Your task to perform on an android device: Open the Play Movies app and select the watchlist tab. Image 0: 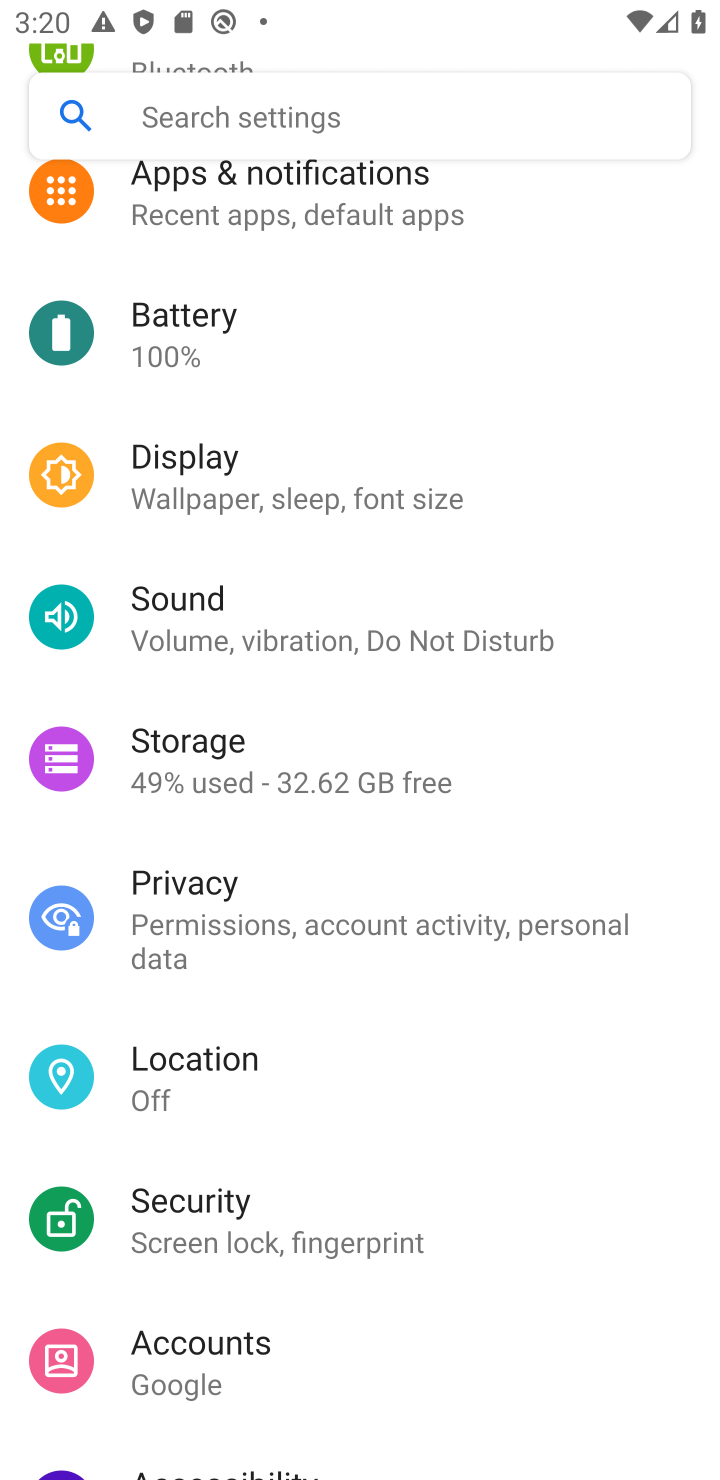
Step 0: press home button
Your task to perform on an android device: Open the Play Movies app and select the watchlist tab. Image 1: 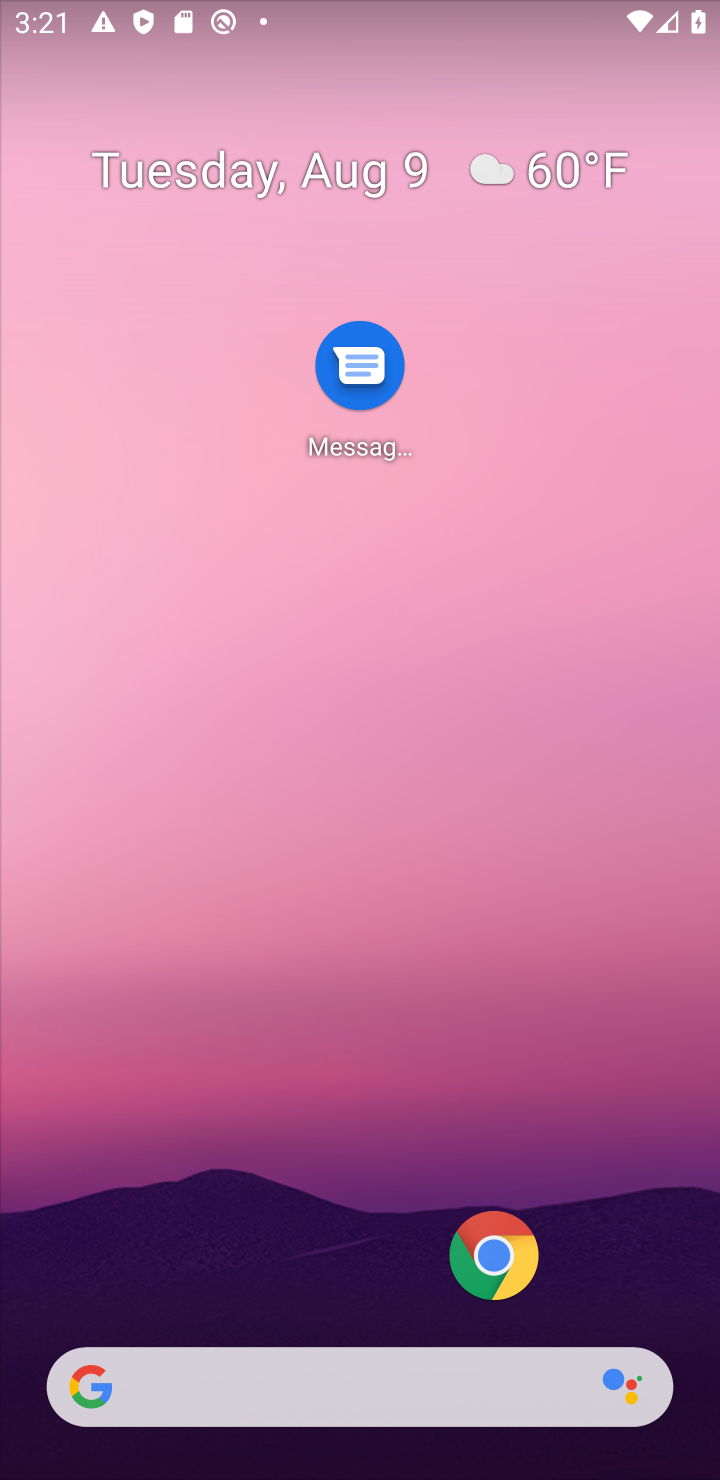
Step 1: drag from (398, 505) to (413, 229)
Your task to perform on an android device: Open the Play Movies app and select the watchlist tab. Image 2: 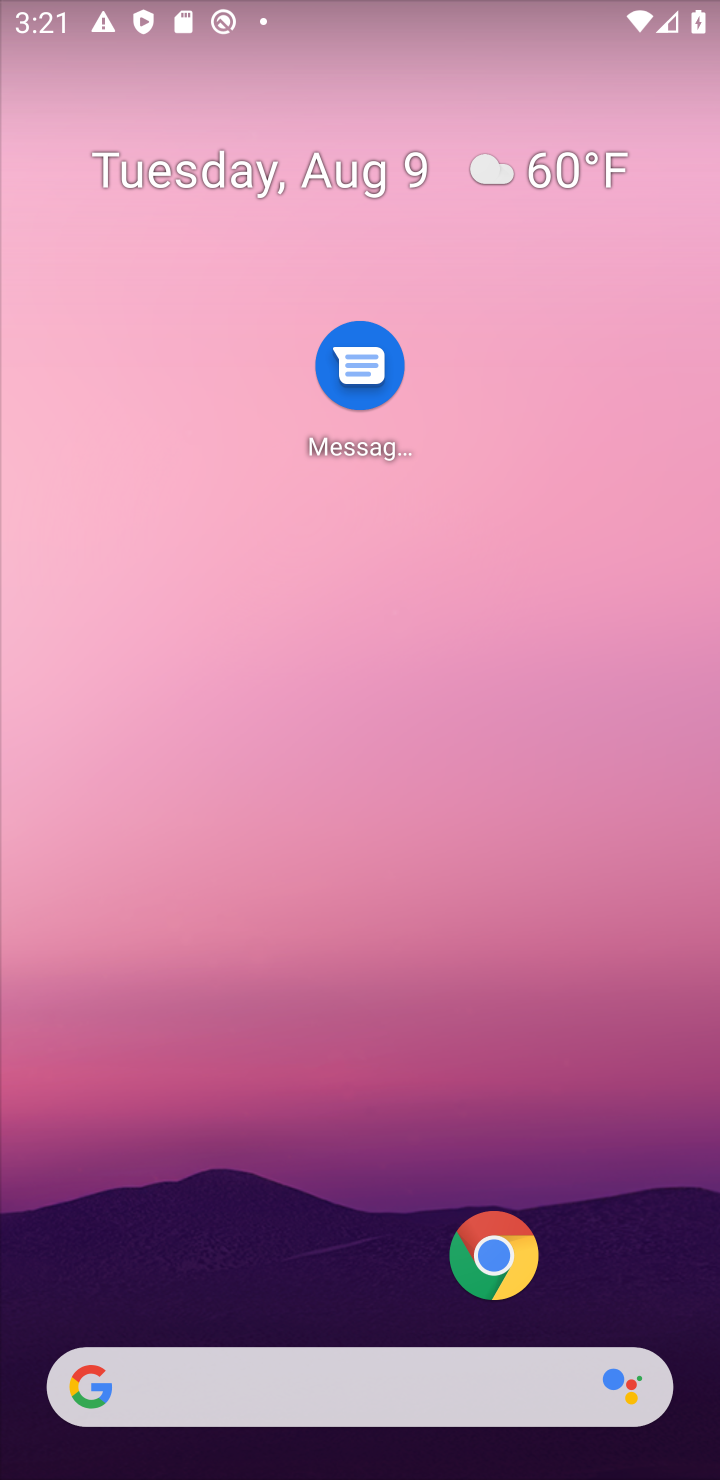
Step 2: drag from (262, 1301) to (376, 441)
Your task to perform on an android device: Open the Play Movies app and select the watchlist tab. Image 3: 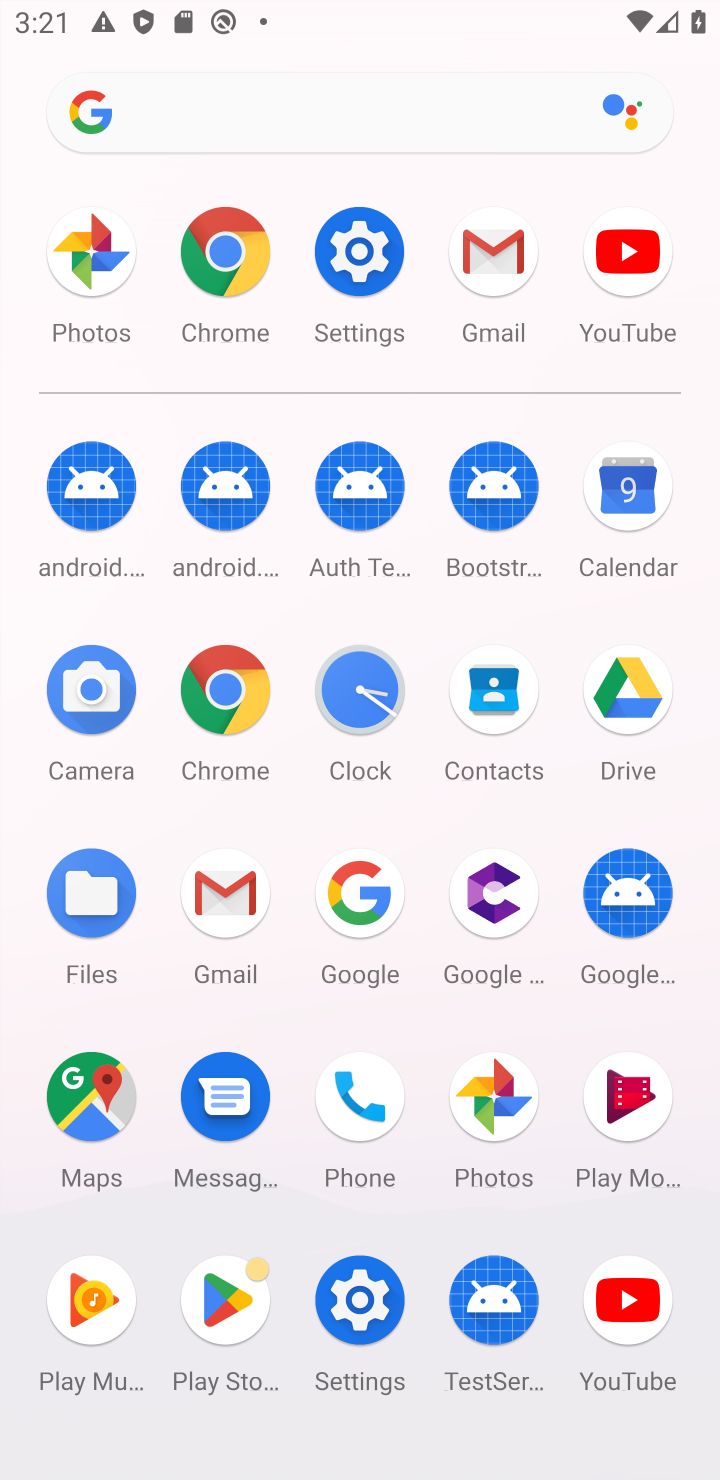
Step 3: click (624, 1105)
Your task to perform on an android device: Open the Play Movies app and select the watchlist tab. Image 4: 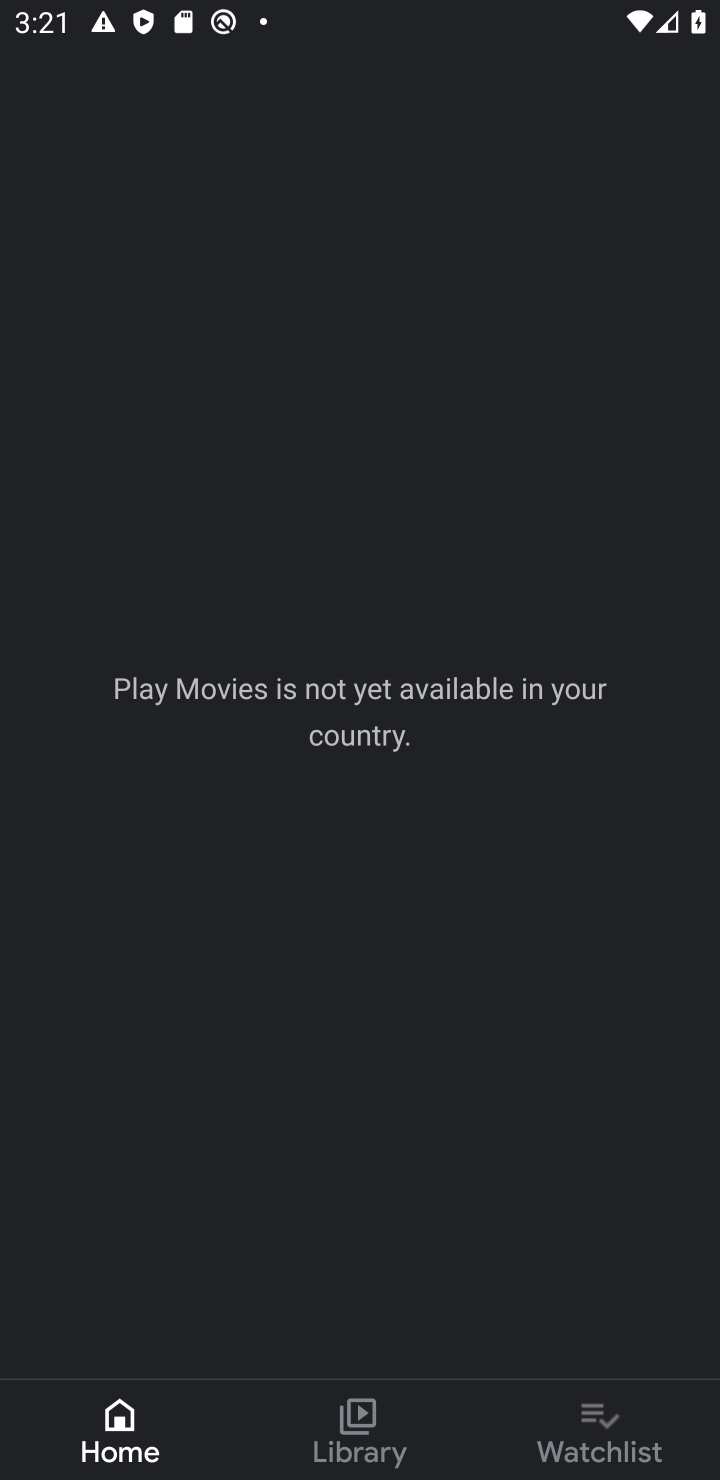
Step 4: click (576, 1414)
Your task to perform on an android device: Open the Play Movies app and select the watchlist tab. Image 5: 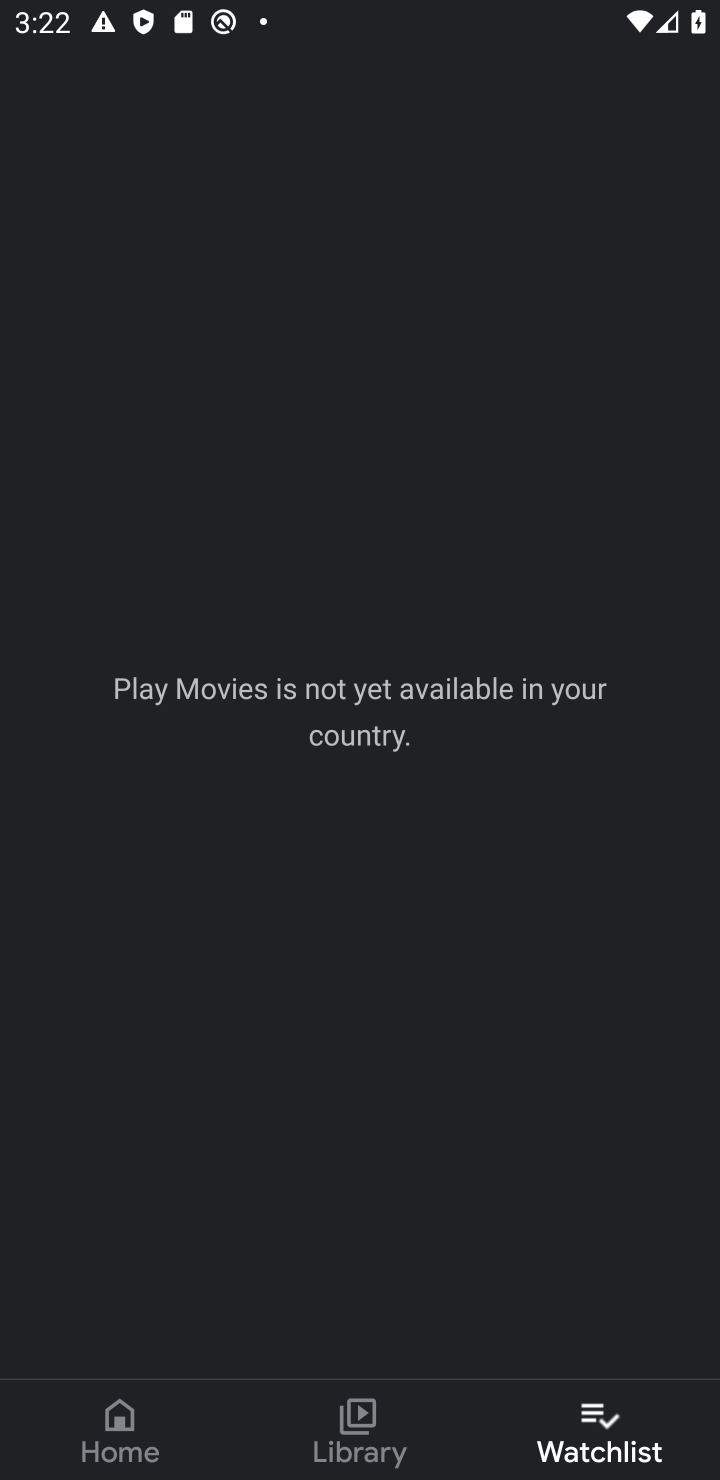
Step 5: task complete